Your task to perform on an android device: Search for logitech g933 on newegg.com, select the first entry, and add it to the cart. Image 0: 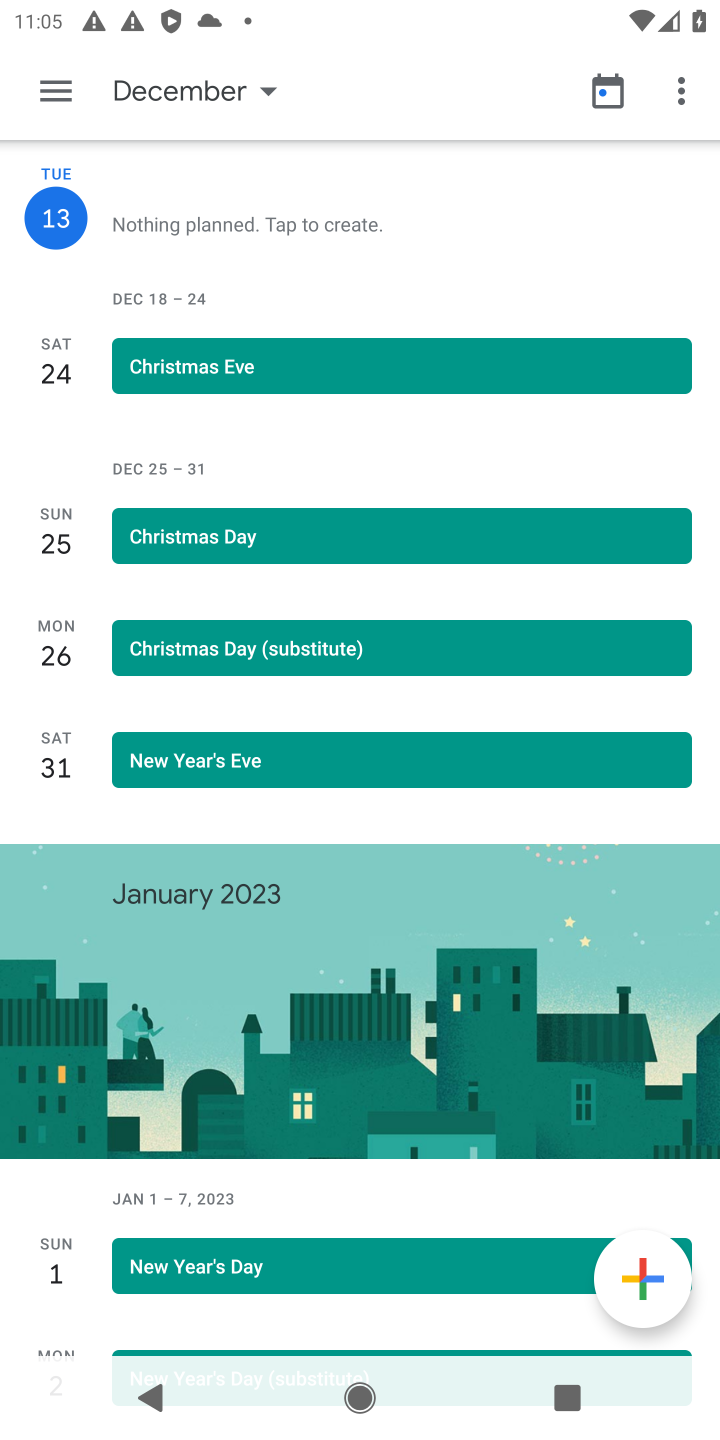
Step 0: press home button
Your task to perform on an android device: Search for logitech g933 on newegg.com, select the first entry, and add it to the cart. Image 1: 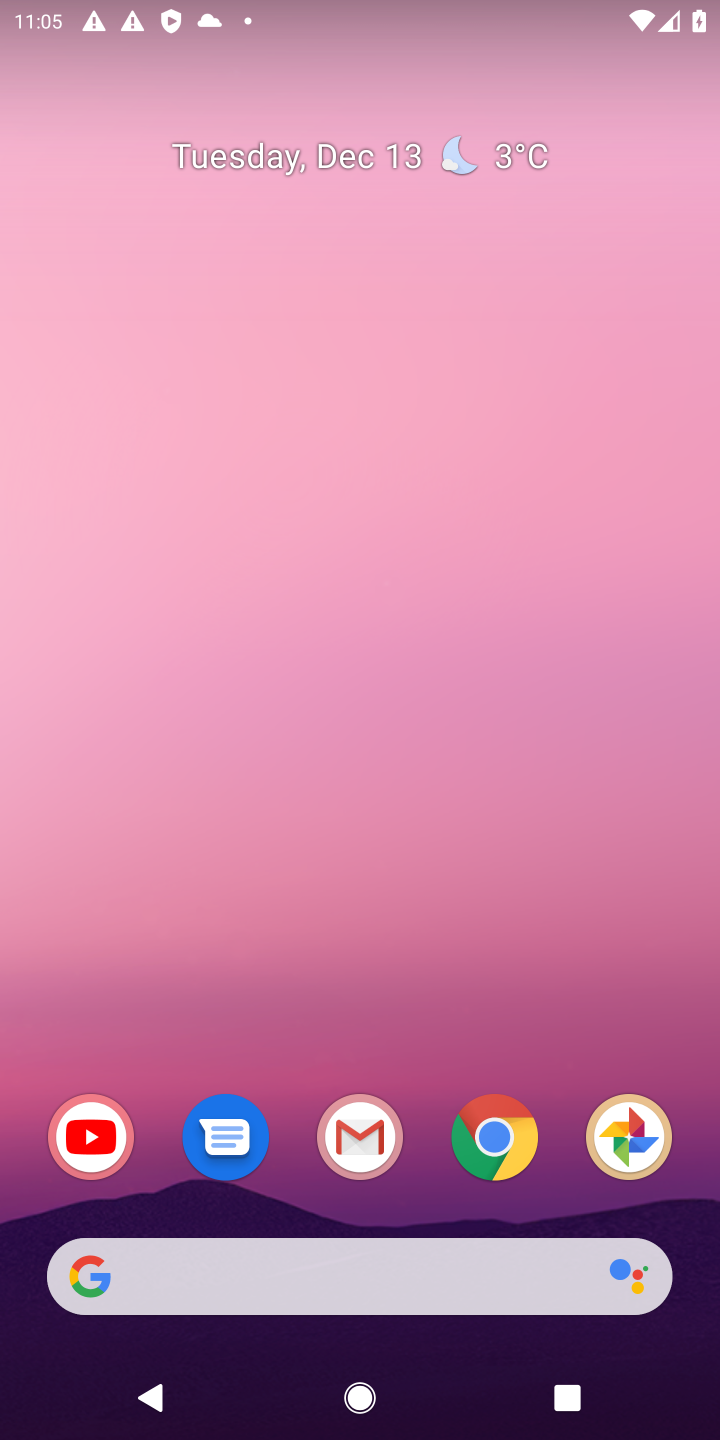
Step 1: click (493, 1147)
Your task to perform on an android device: Search for logitech g933 on newegg.com, select the first entry, and add it to the cart. Image 2: 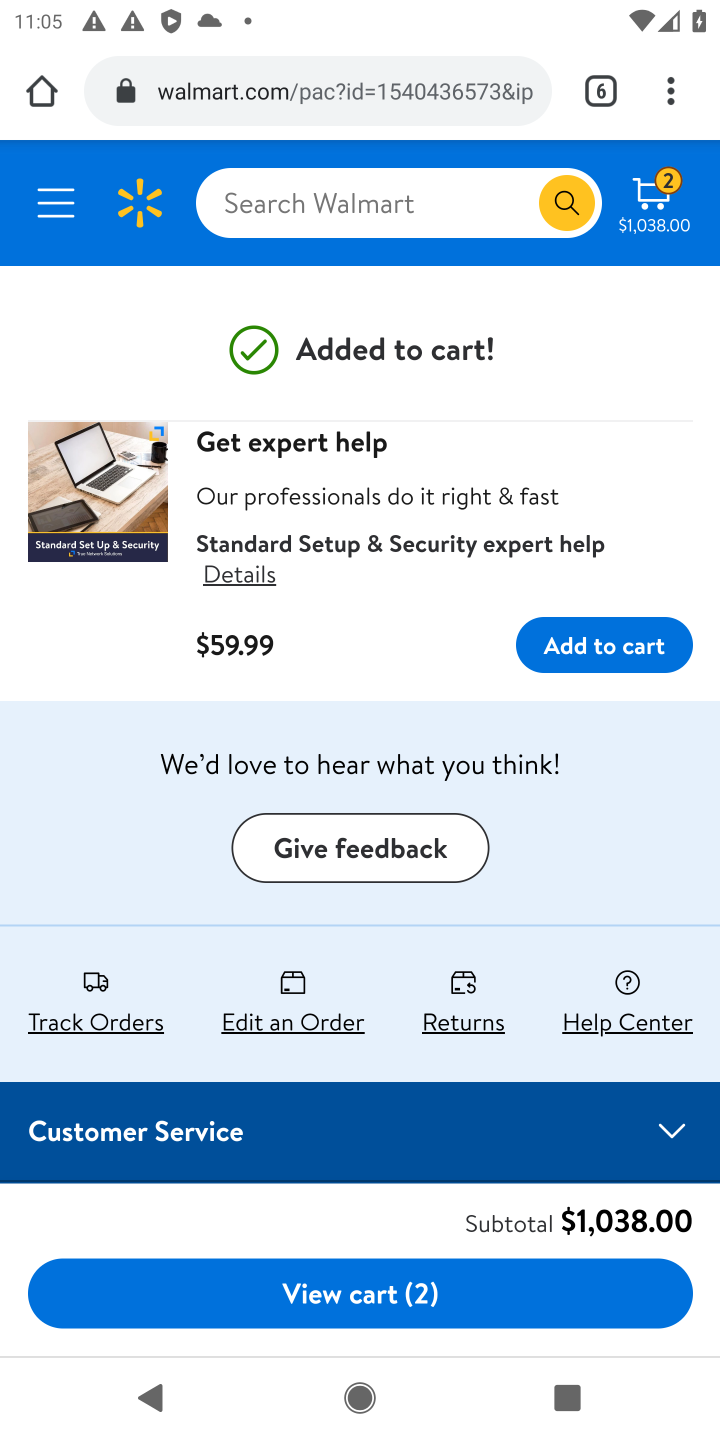
Step 2: click (591, 96)
Your task to perform on an android device: Search for logitech g933 on newegg.com, select the first entry, and add it to the cart. Image 3: 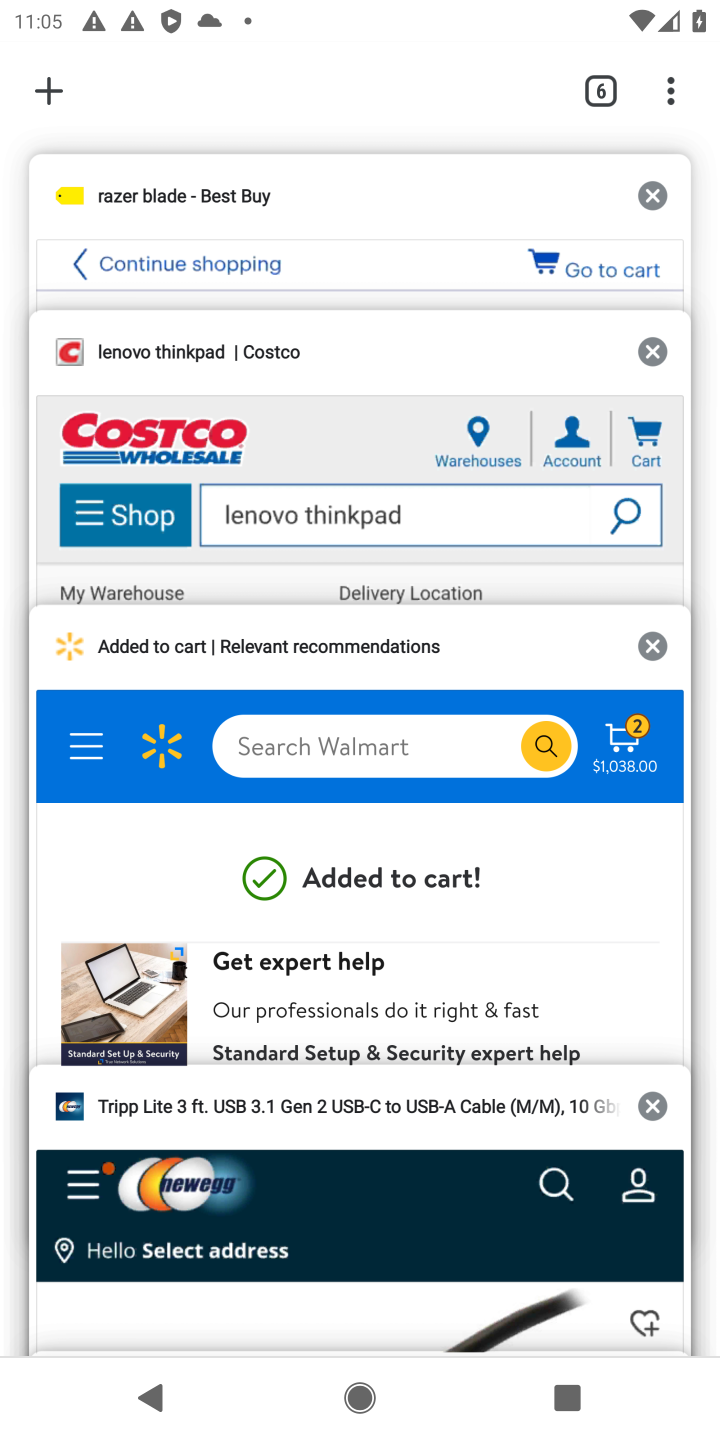
Step 3: click (247, 1215)
Your task to perform on an android device: Search for logitech g933 on newegg.com, select the first entry, and add it to the cart. Image 4: 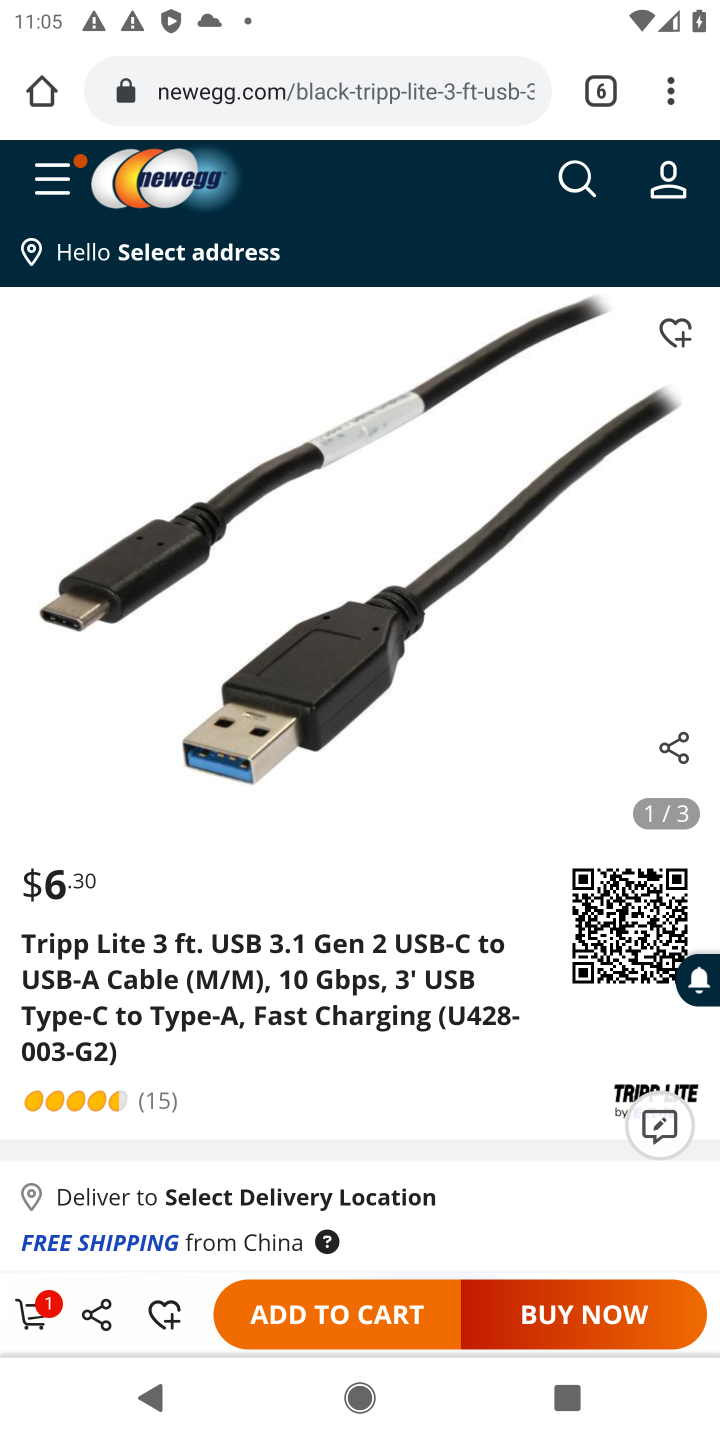
Step 4: click (581, 170)
Your task to perform on an android device: Search for logitech g933 on newegg.com, select the first entry, and add it to the cart. Image 5: 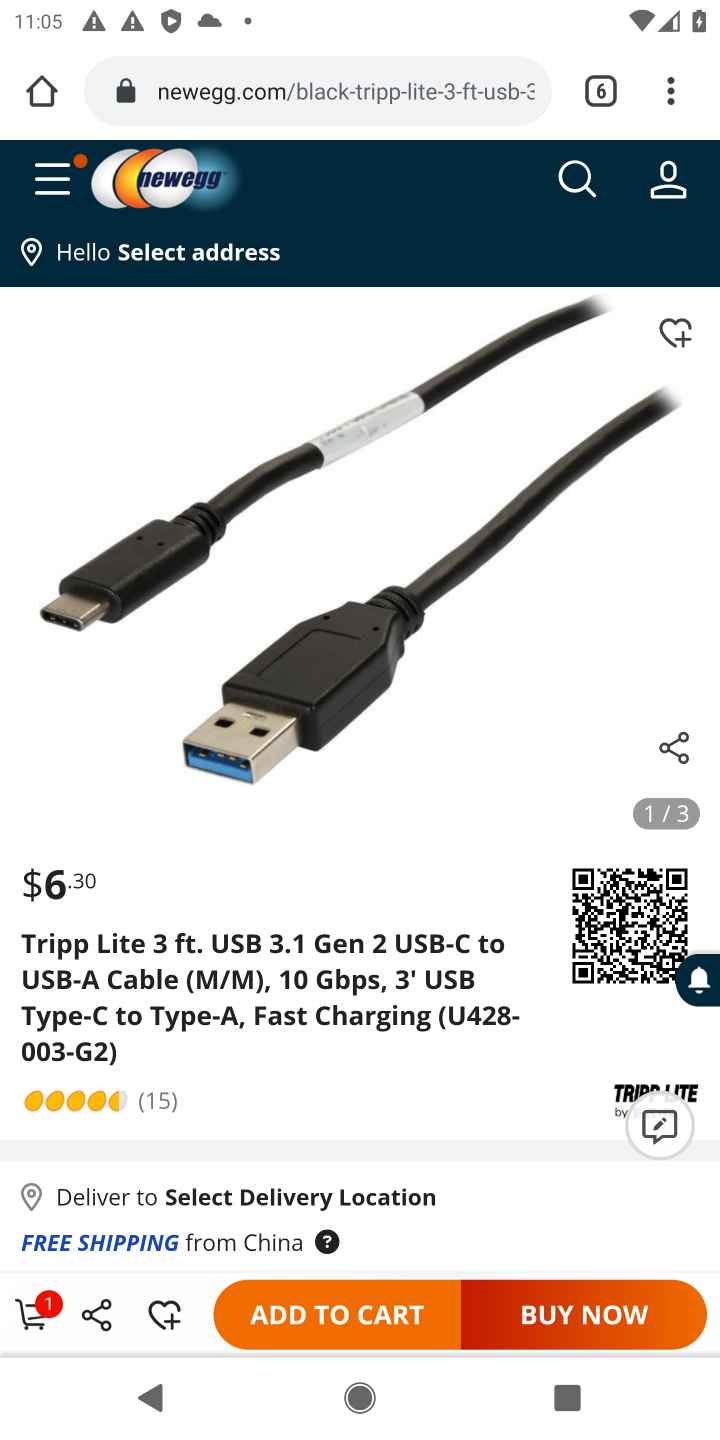
Step 5: type "logitech g933"
Your task to perform on an android device: Search for logitech g933 on newegg.com, select the first entry, and add it to the cart. Image 6: 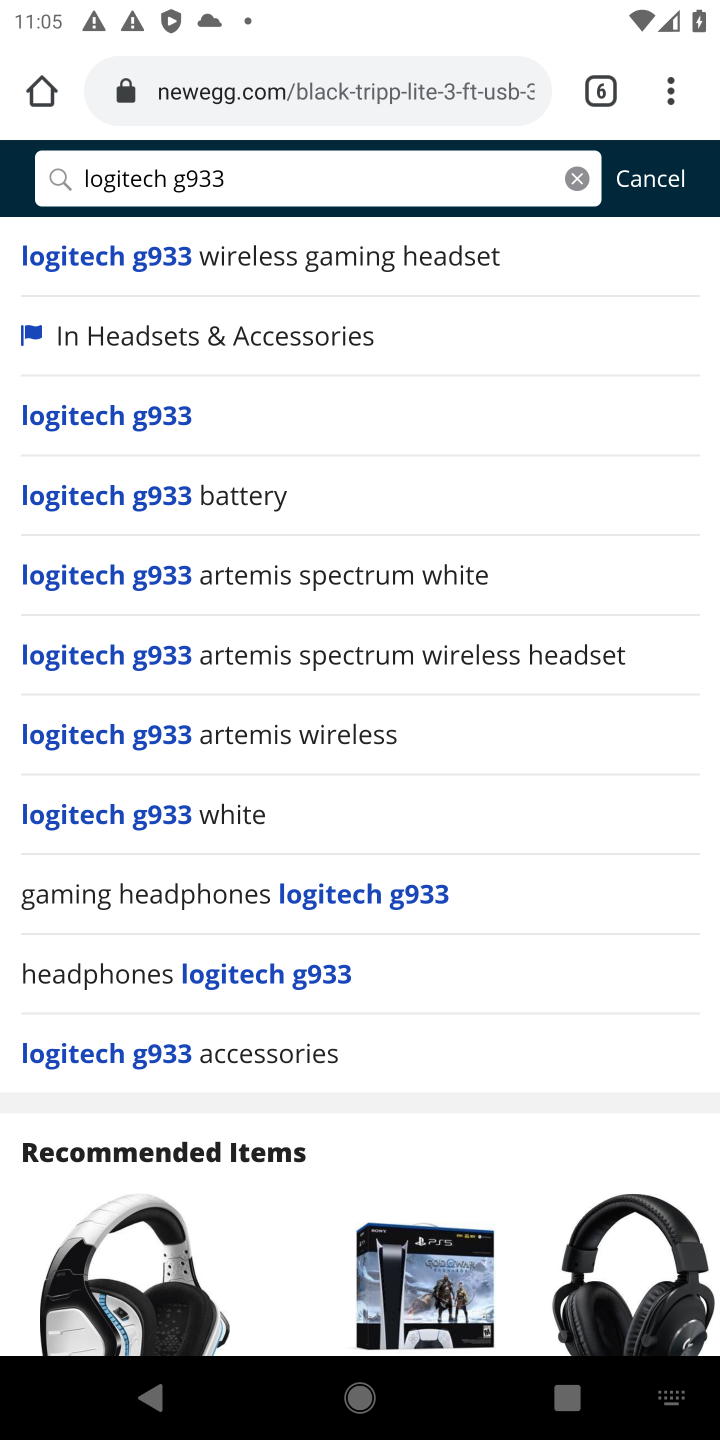
Step 6: click (126, 270)
Your task to perform on an android device: Search for logitech g933 on newegg.com, select the first entry, and add it to the cart. Image 7: 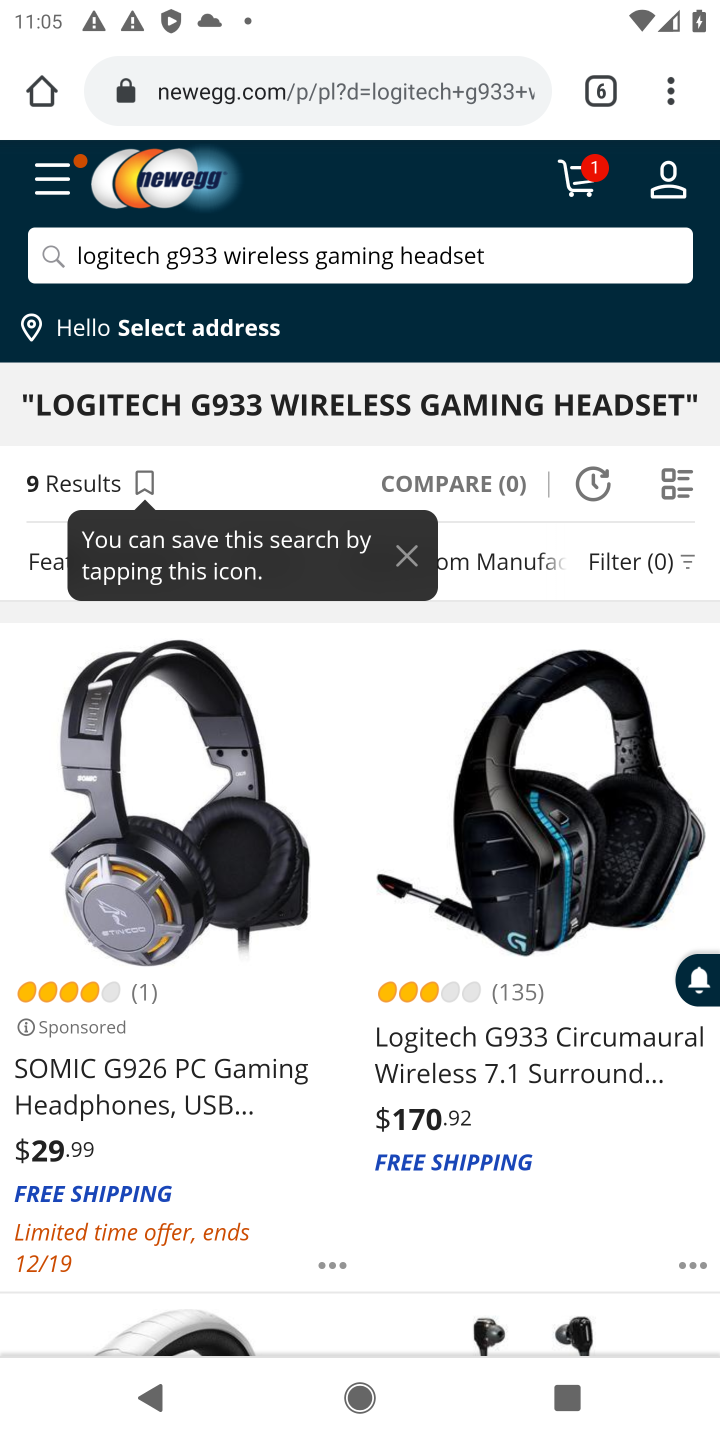
Step 7: click (573, 1048)
Your task to perform on an android device: Search for logitech g933 on newegg.com, select the first entry, and add it to the cart. Image 8: 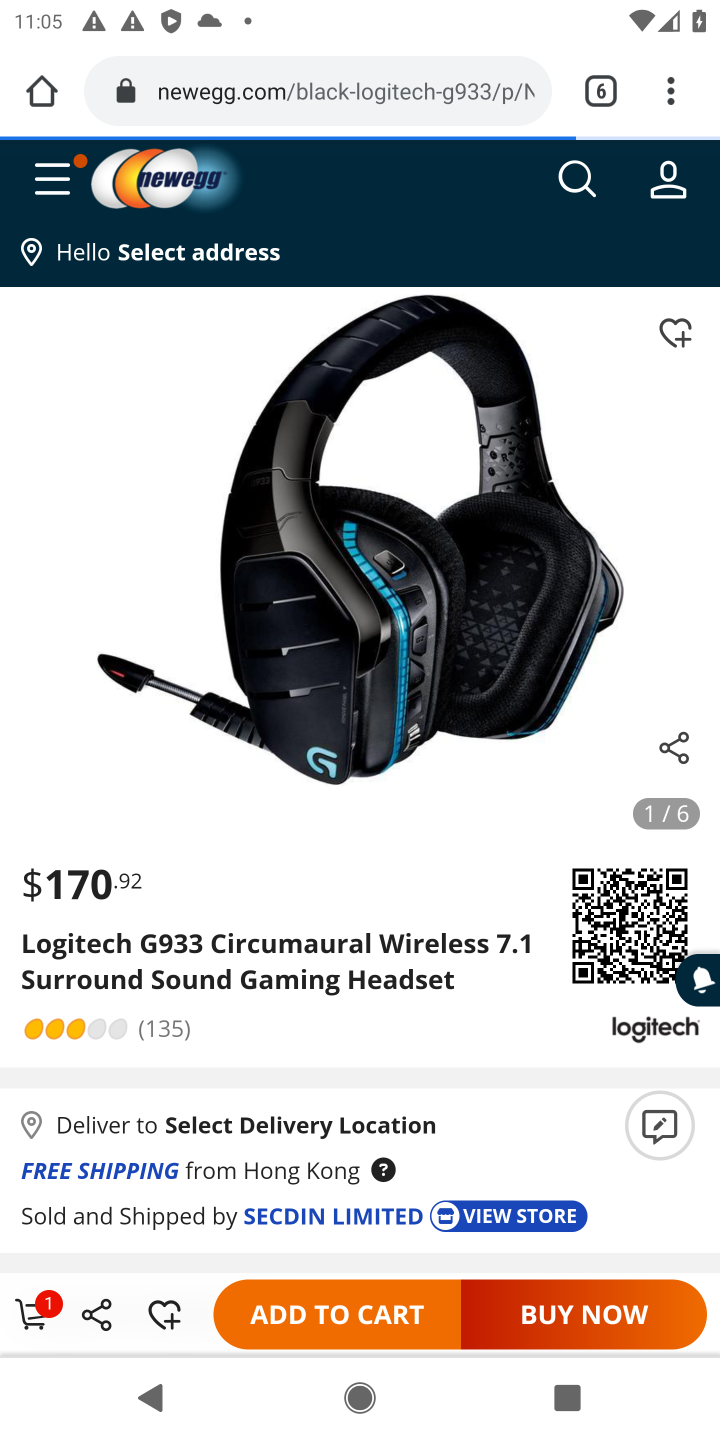
Step 8: click (356, 1315)
Your task to perform on an android device: Search for logitech g933 on newegg.com, select the first entry, and add it to the cart. Image 9: 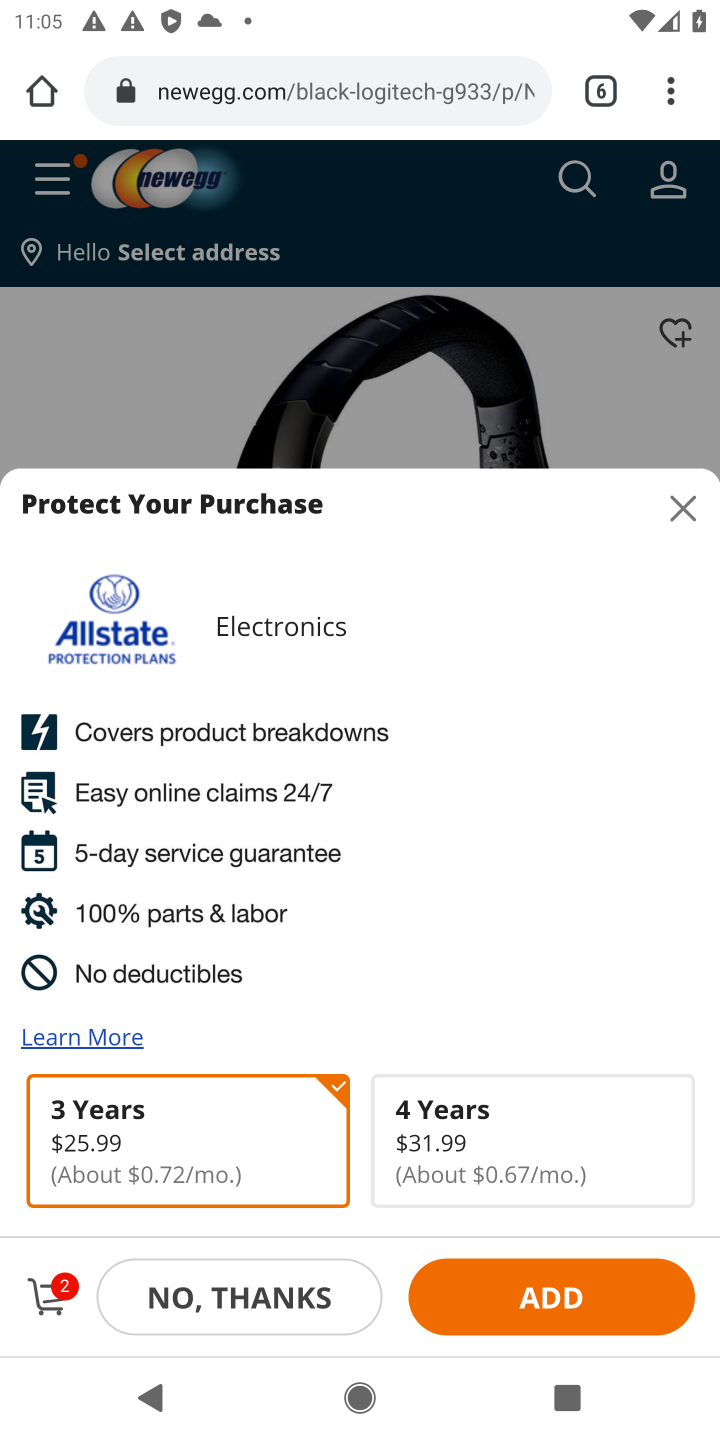
Step 9: task complete